Your task to perform on an android device: turn on bluetooth scan Image 0: 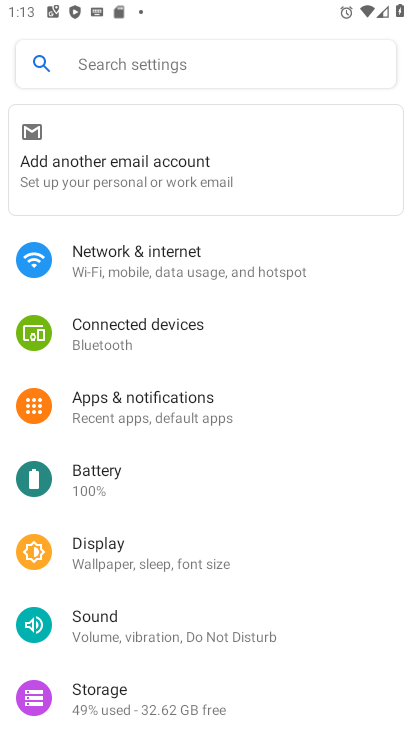
Step 0: drag from (117, 685) to (103, 319)
Your task to perform on an android device: turn on bluetooth scan Image 1: 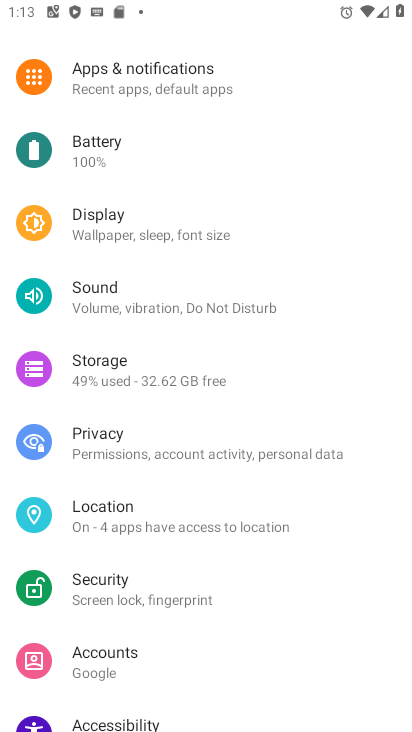
Step 1: click (116, 516)
Your task to perform on an android device: turn on bluetooth scan Image 2: 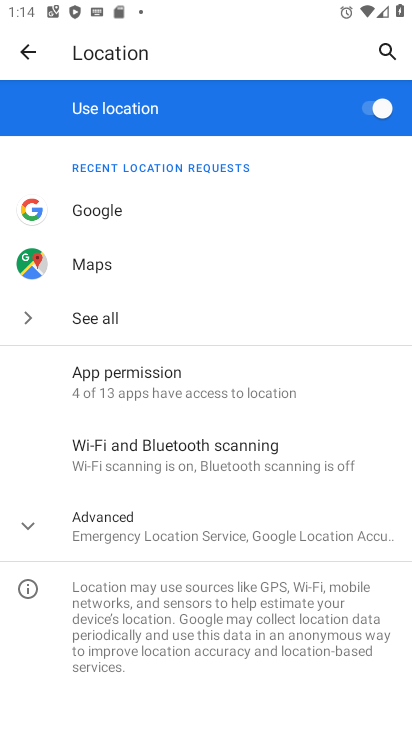
Step 2: click (150, 446)
Your task to perform on an android device: turn on bluetooth scan Image 3: 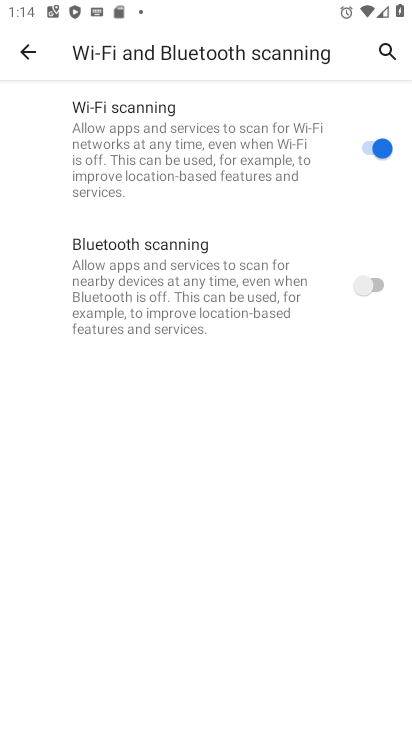
Step 3: click (377, 285)
Your task to perform on an android device: turn on bluetooth scan Image 4: 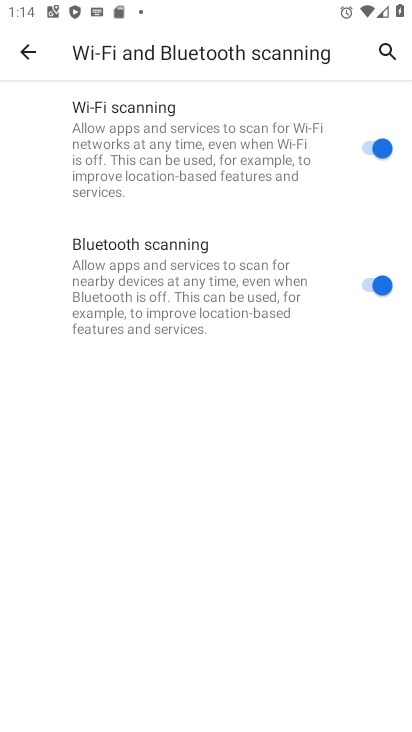
Step 4: task complete